Your task to perform on an android device: open chrome privacy settings Image 0: 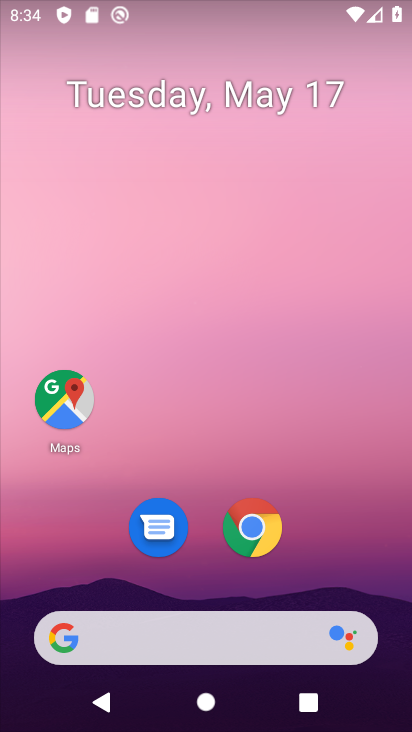
Step 0: drag from (330, 550) to (318, 215)
Your task to perform on an android device: open chrome privacy settings Image 1: 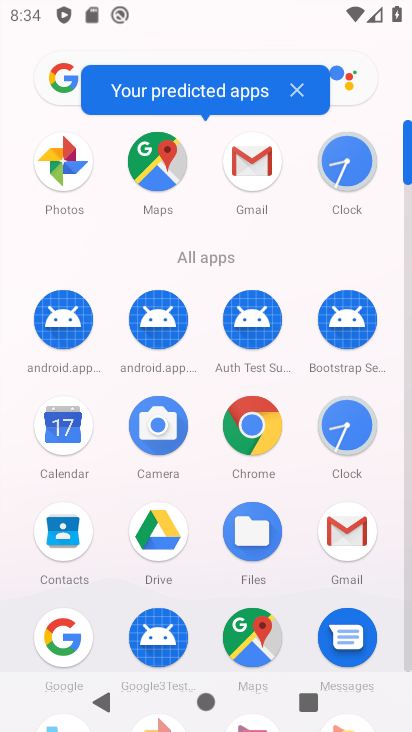
Step 1: click (240, 408)
Your task to perform on an android device: open chrome privacy settings Image 2: 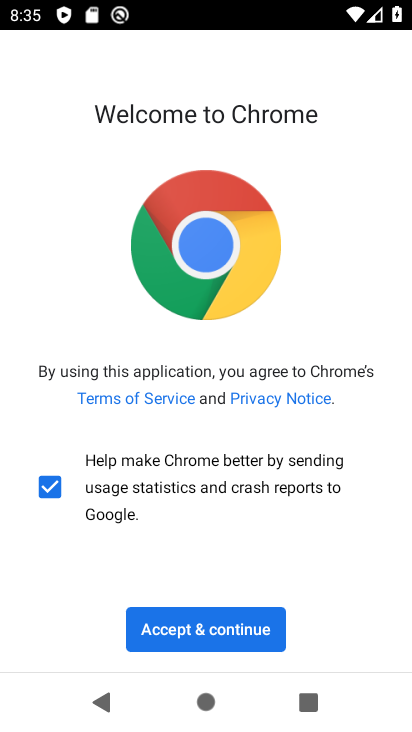
Step 2: click (191, 613)
Your task to perform on an android device: open chrome privacy settings Image 3: 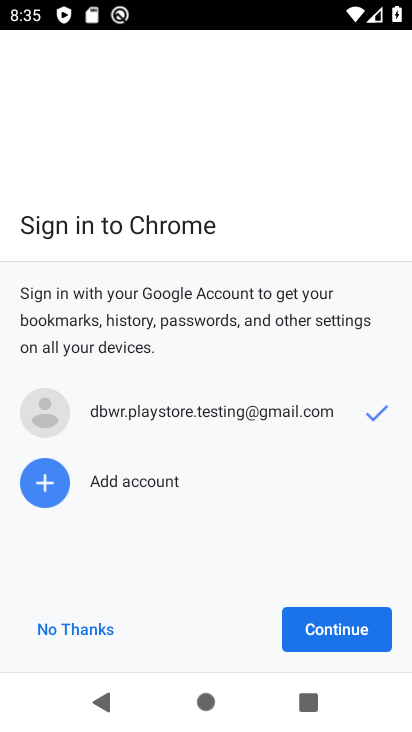
Step 3: click (339, 621)
Your task to perform on an android device: open chrome privacy settings Image 4: 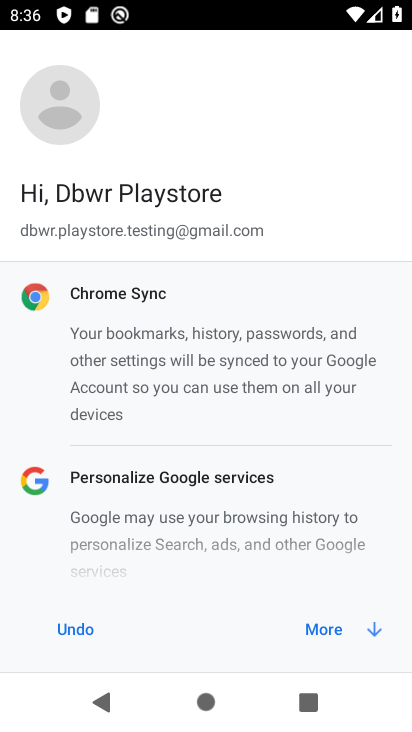
Step 4: click (349, 649)
Your task to perform on an android device: open chrome privacy settings Image 5: 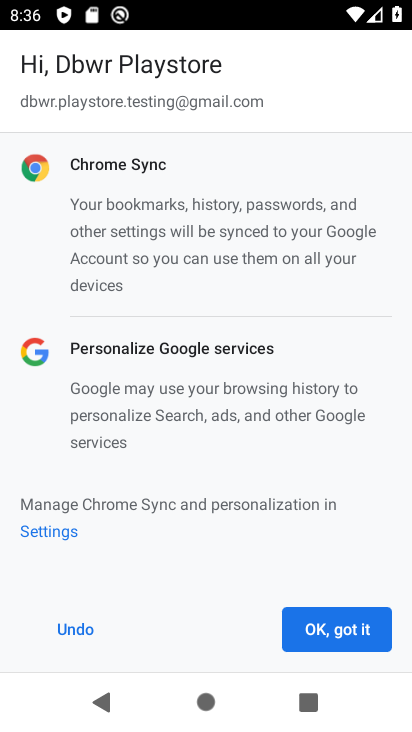
Step 5: click (367, 631)
Your task to perform on an android device: open chrome privacy settings Image 6: 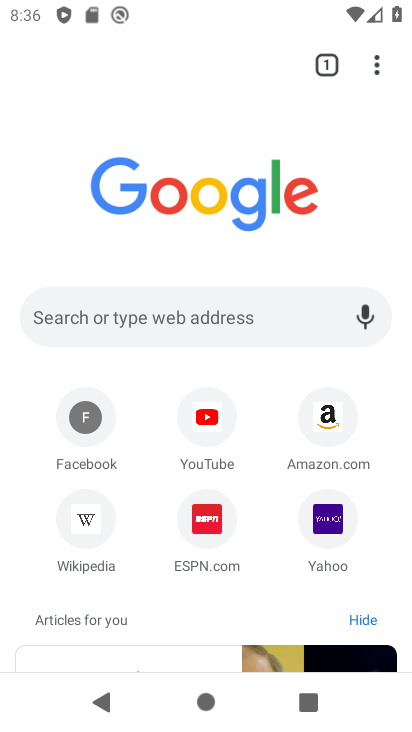
Step 6: click (373, 76)
Your task to perform on an android device: open chrome privacy settings Image 7: 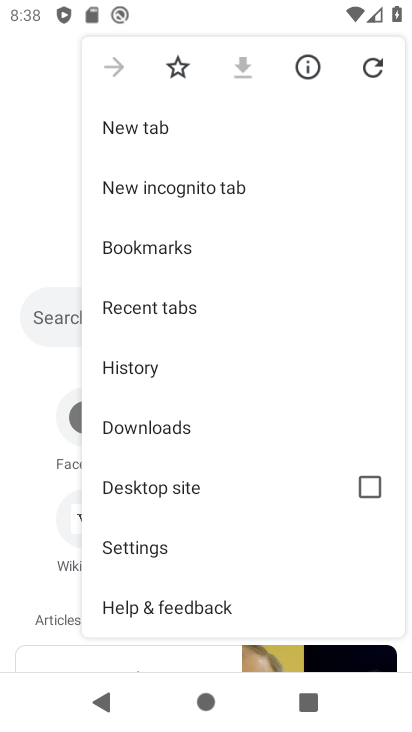
Step 7: click (125, 533)
Your task to perform on an android device: open chrome privacy settings Image 8: 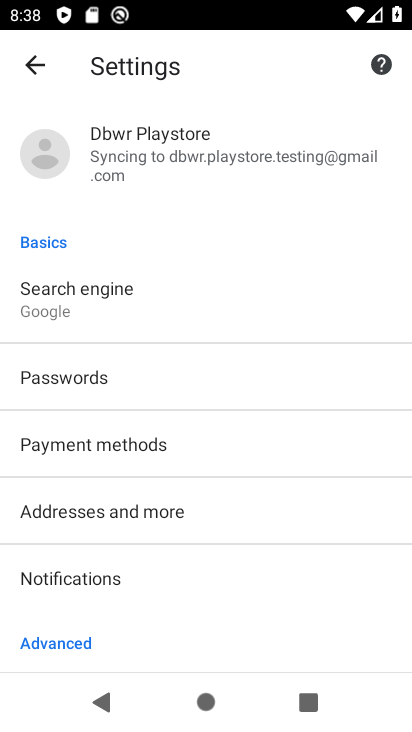
Step 8: drag from (159, 561) to (202, 327)
Your task to perform on an android device: open chrome privacy settings Image 9: 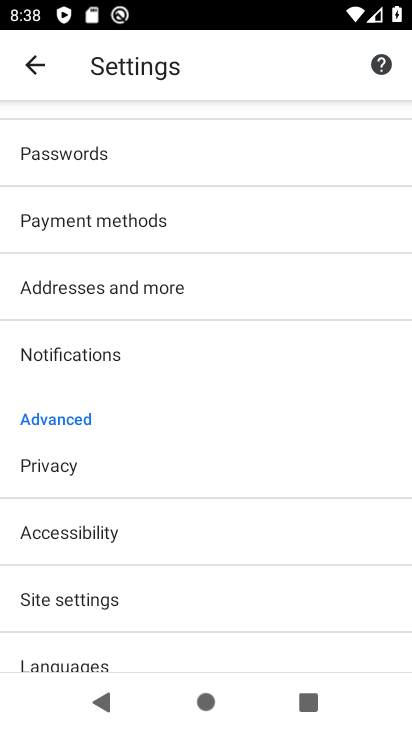
Step 9: click (161, 478)
Your task to perform on an android device: open chrome privacy settings Image 10: 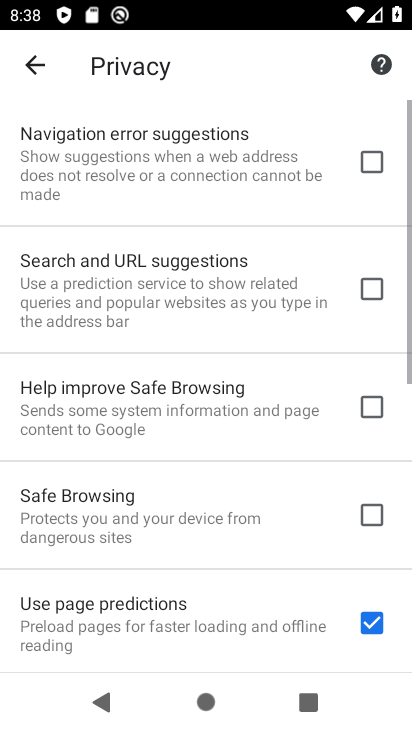
Step 10: task complete